Your task to perform on an android device: Turn off the flashlight Image 0: 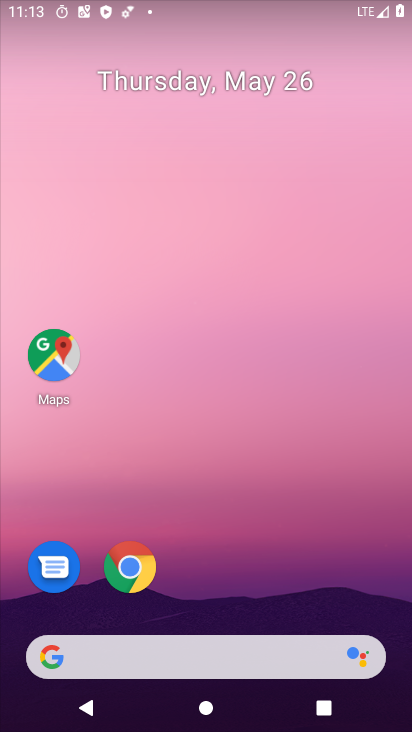
Step 0: drag from (269, 350) to (265, 722)
Your task to perform on an android device: Turn off the flashlight Image 1: 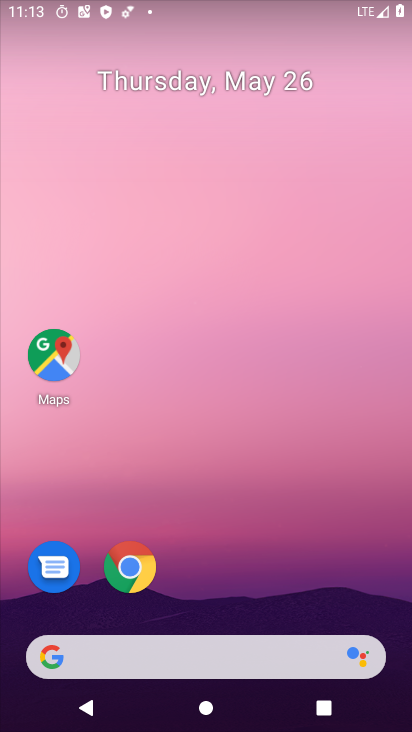
Step 1: task complete